Your task to perform on an android device: allow notifications from all sites in the chrome app Image 0: 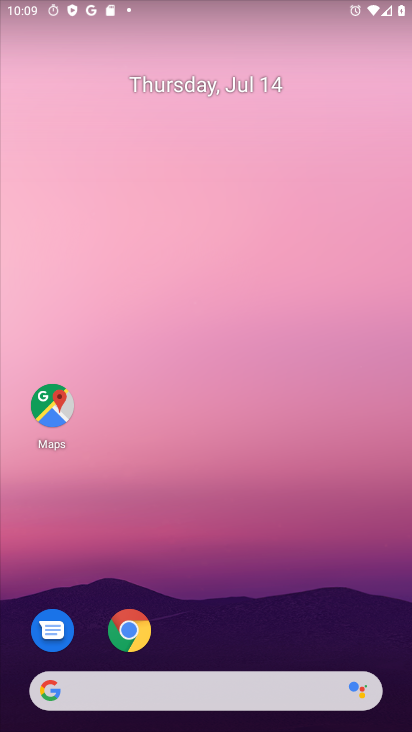
Step 0: click (128, 632)
Your task to perform on an android device: allow notifications from all sites in the chrome app Image 1: 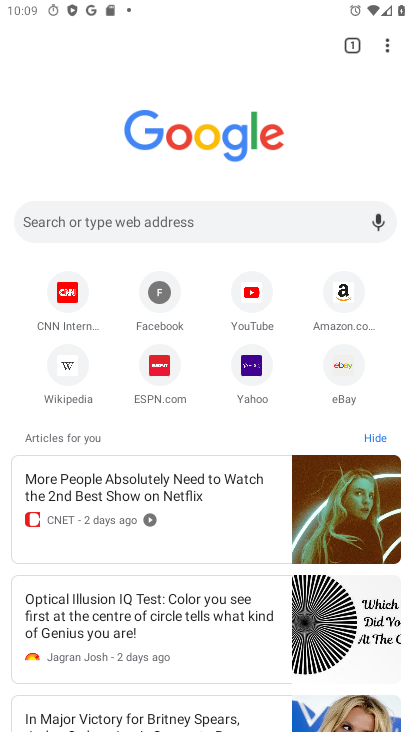
Step 1: click (380, 41)
Your task to perform on an android device: allow notifications from all sites in the chrome app Image 2: 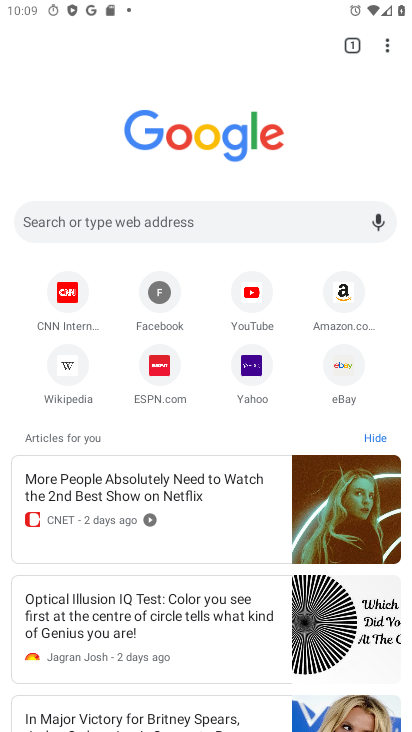
Step 2: click (390, 43)
Your task to perform on an android device: allow notifications from all sites in the chrome app Image 3: 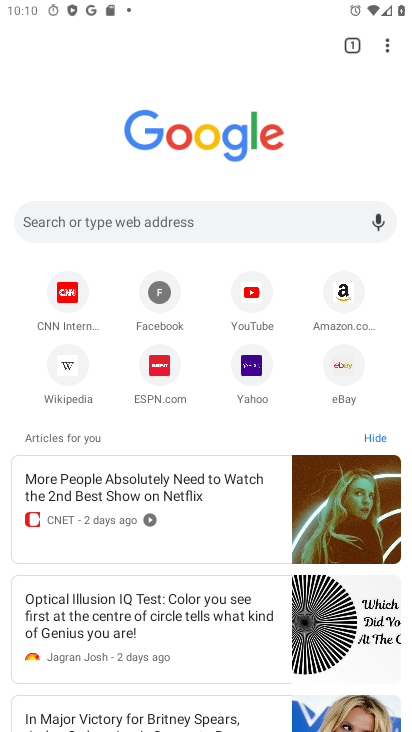
Step 3: click (380, 42)
Your task to perform on an android device: allow notifications from all sites in the chrome app Image 4: 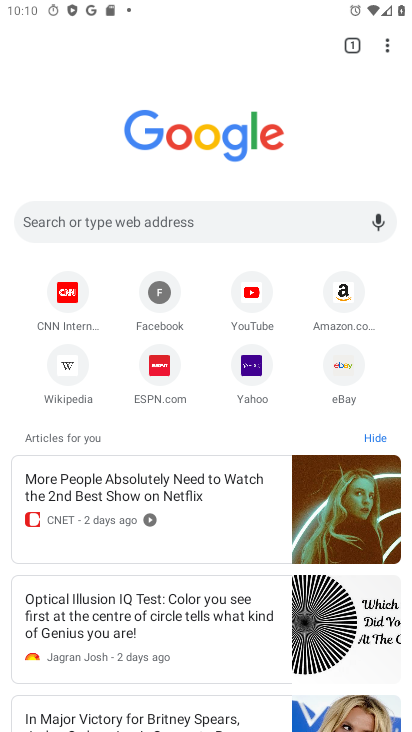
Step 4: task complete